Your task to perform on an android device: turn off sleep mode Image 0: 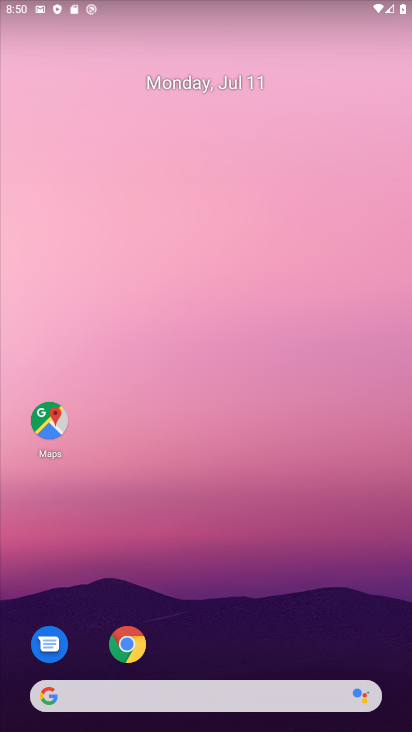
Step 0: drag from (208, 392) to (239, 24)
Your task to perform on an android device: turn off sleep mode Image 1: 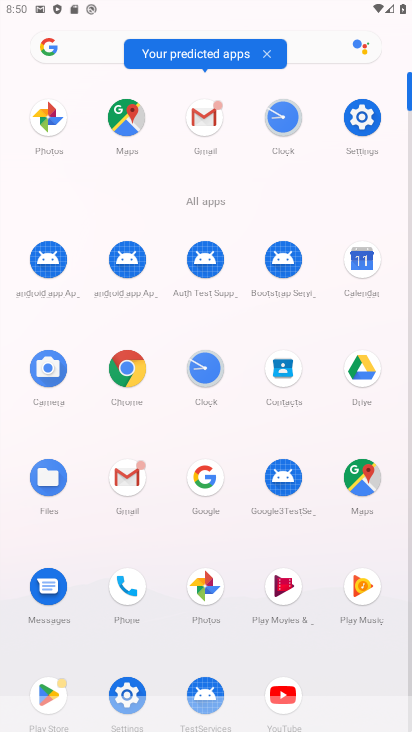
Step 1: click (361, 127)
Your task to perform on an android device: turn off sleep mode Image 2: 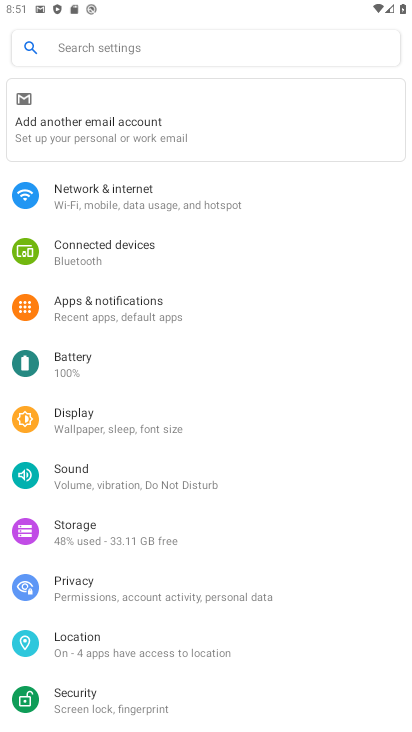
Step 2: task complete